Your task to perform on an android device: Go to Google Image 0: 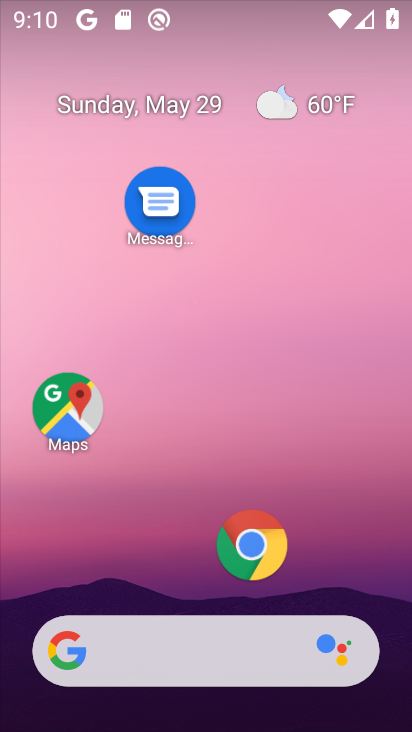
Step 0: click (276, 135)
Your task to perform on an android device: Go to Google Image 1: 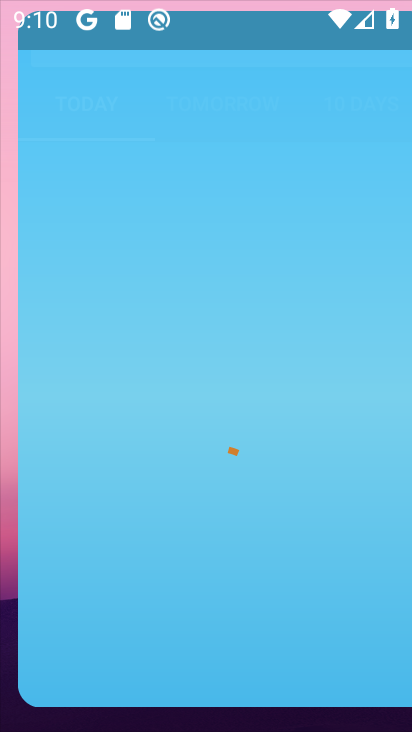
Step 1: drag from (206, 622) to (114, 120)
Your task to perform on an android device: Go to Google Image 2: 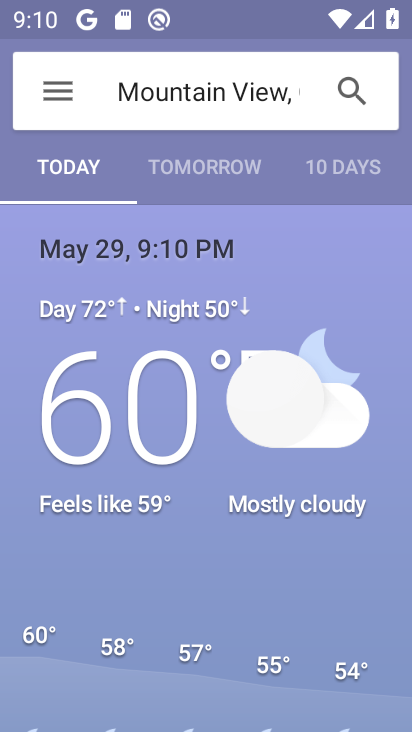
Step 2: press home button
Your task to perform on an android device: Go to Google Image 3: 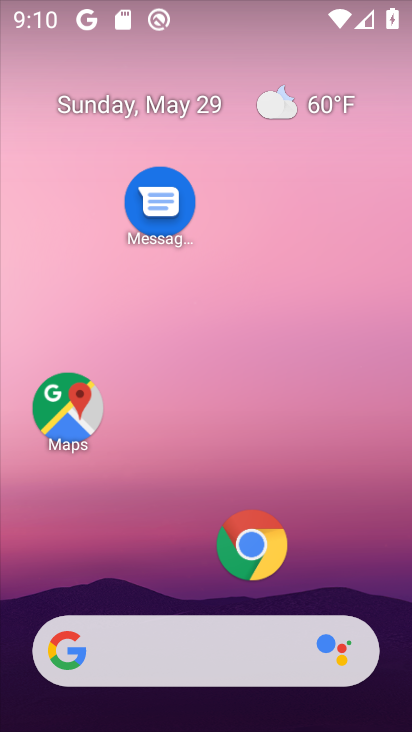
Step 3: drag from (162, 612) to (226, 136)
Your task to perform on an android device: Go to Google Image 4: 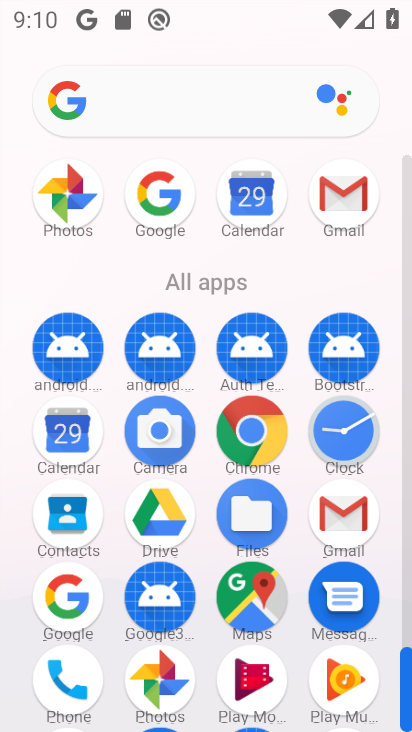
Step 4: click (74, 600)
Your task to perform on an android device: Go to Google Image 5: 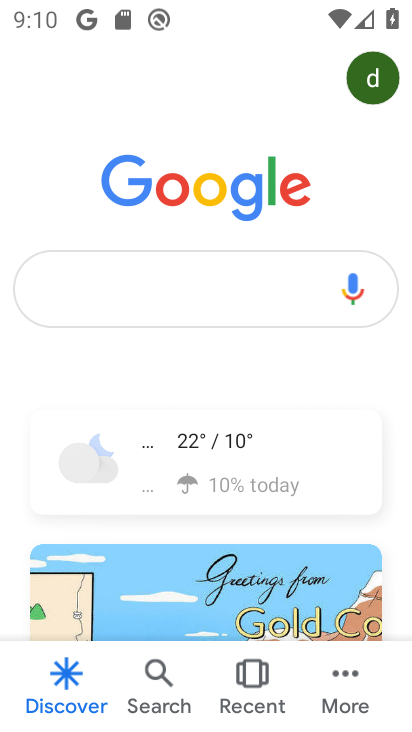
Step 5: click (151, 285)
Your task to perform on an android device: Go to Google Image 6: 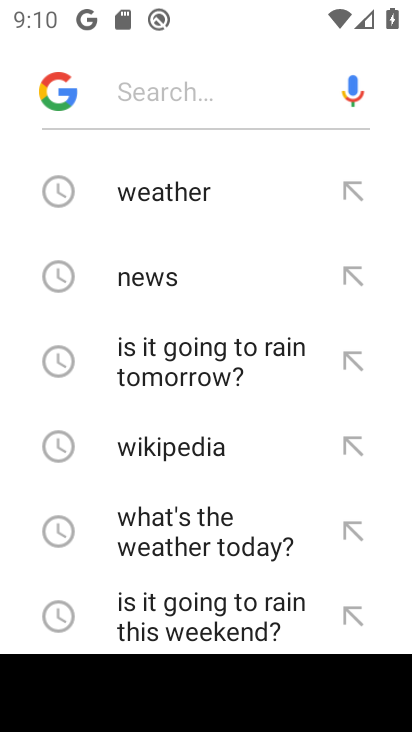
Step 6: drag from (209, 637) to (230, 201)
Your task to perform on an android device: Go to Google Image 7: 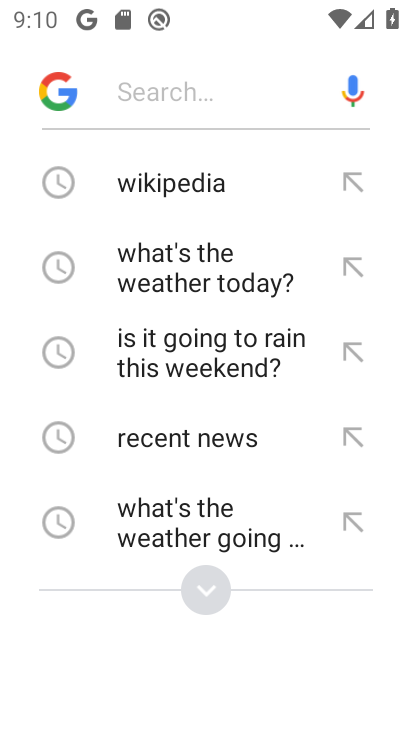
Step 7: click (211, 594)
Your task to perform on an android device: Go to Google Image 8: 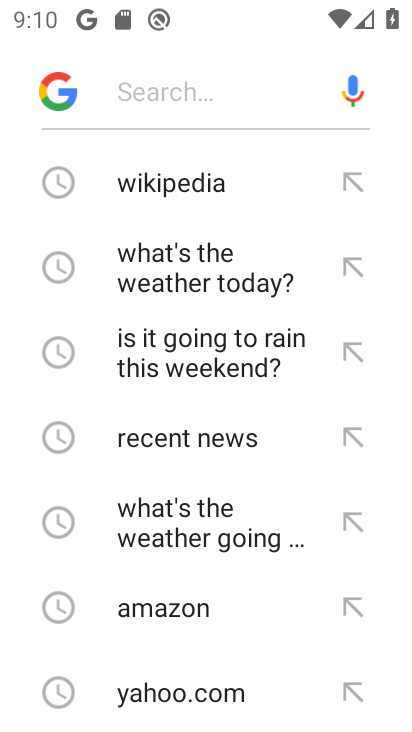
Step 8: task complete